Your task to perform on an android device: open a bookmark in the chrome app Image 0: 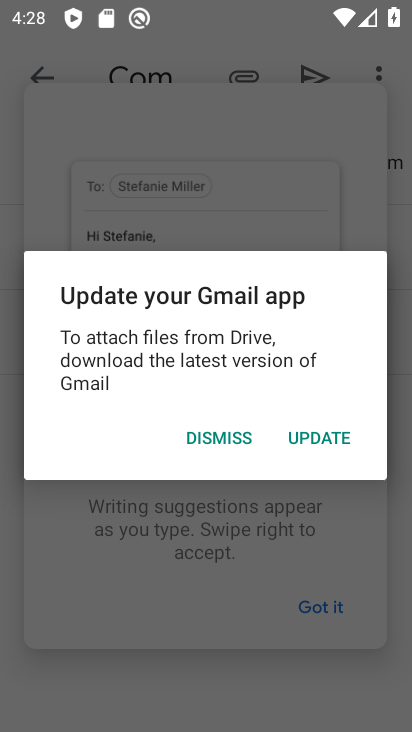
Step 0: press home button
Your task to perform on an android device: open a bookmark in the chrome app Image 1: 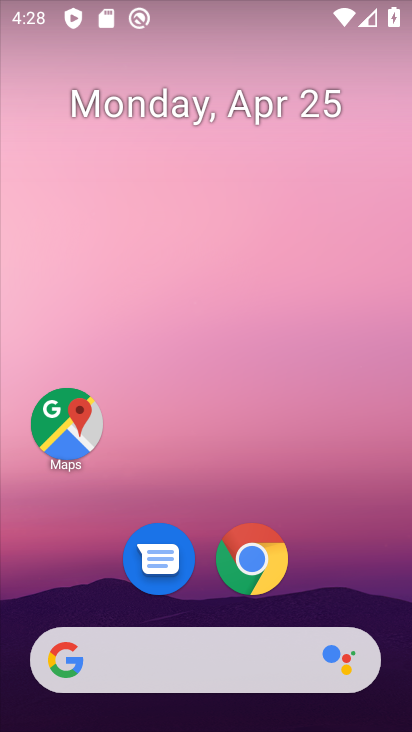
Step 1: click (254, 564)
Your task to perform on an android device: open a bookmark in the chrome app Image 2: 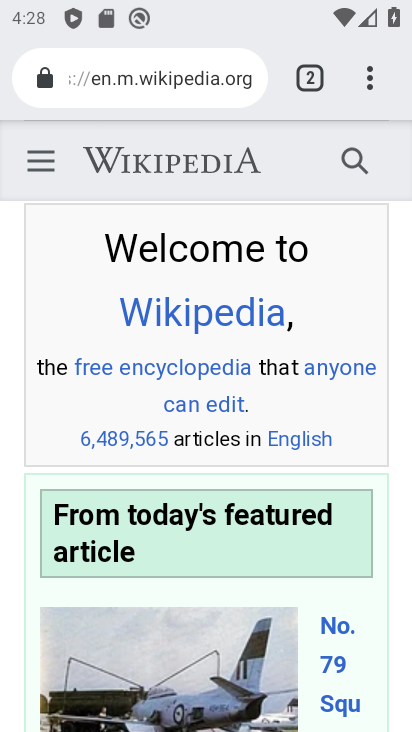
Step 2: click (372, 67)
Your task to perform on an android device: open a bookmark in the chrome app Image 3: 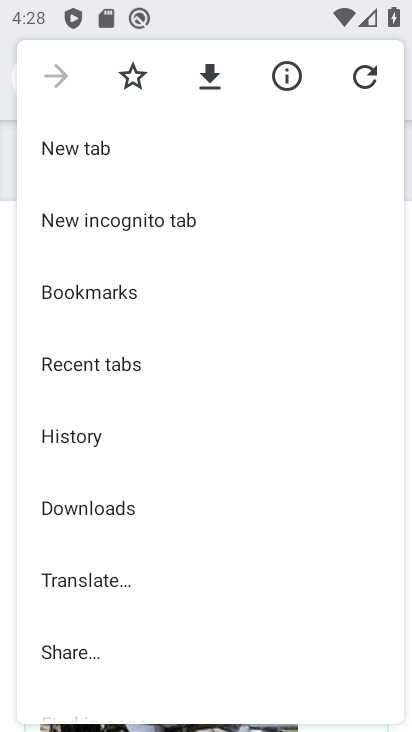
Step 3: click (128, 283)
Your task to perform on an android device: open a bookmark in the chrome app Image 4: 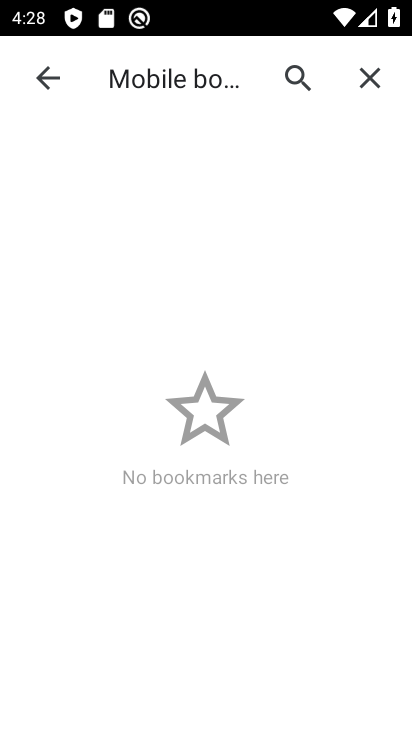
Step 4: task complete